Your task to perform on an android device: Open accessibility settings Image 0: 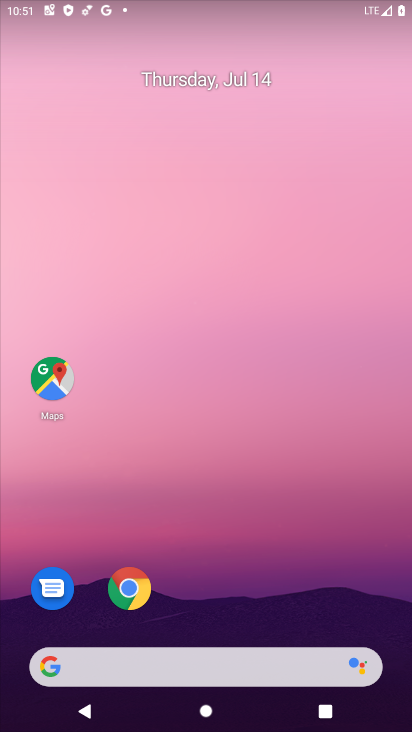
Step 0: drag from (164, 663) to (303, 156)
Your task to perform on an android device: Open accessibility settings Image 1: 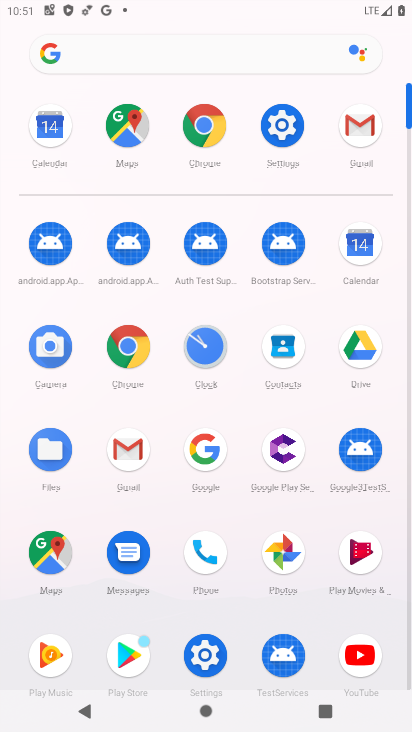
Step 1: click (275, 129)
Your task to perform on an android device: Open accessibility settings Image 2: 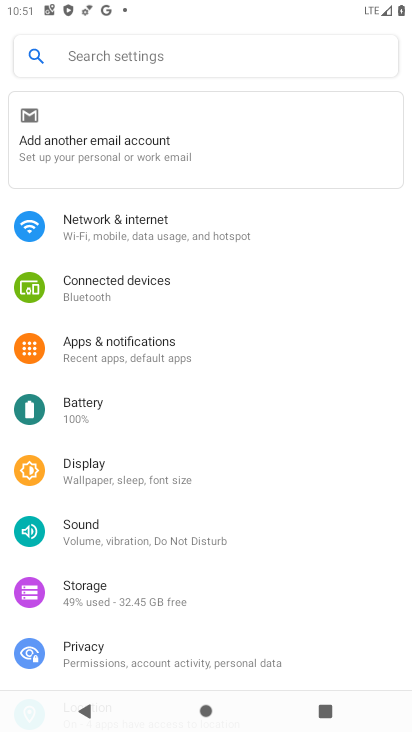
Step 2: drag from (226, 638) to (369, 179)
Your task to perform on an android device: Open accessibility settings Image 3: 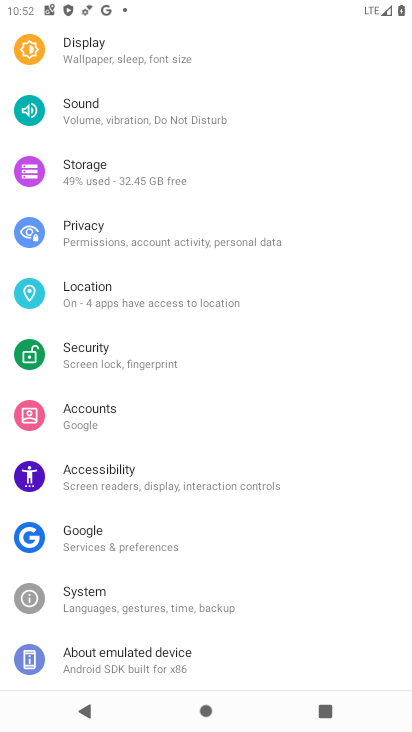
Step 3: click (131, 485)
Your task to perform on an android device: Open accessibility settings Image 4: 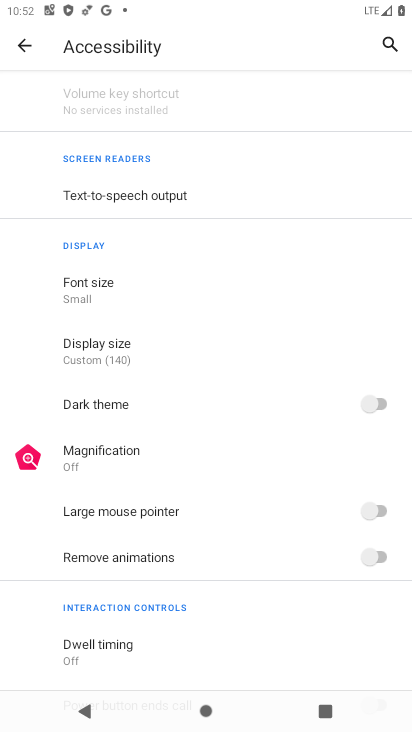
Step 4: task complete